Your task to perform on an android device: install app "Etsy: Buy & Sell Unique Items" Image 0: 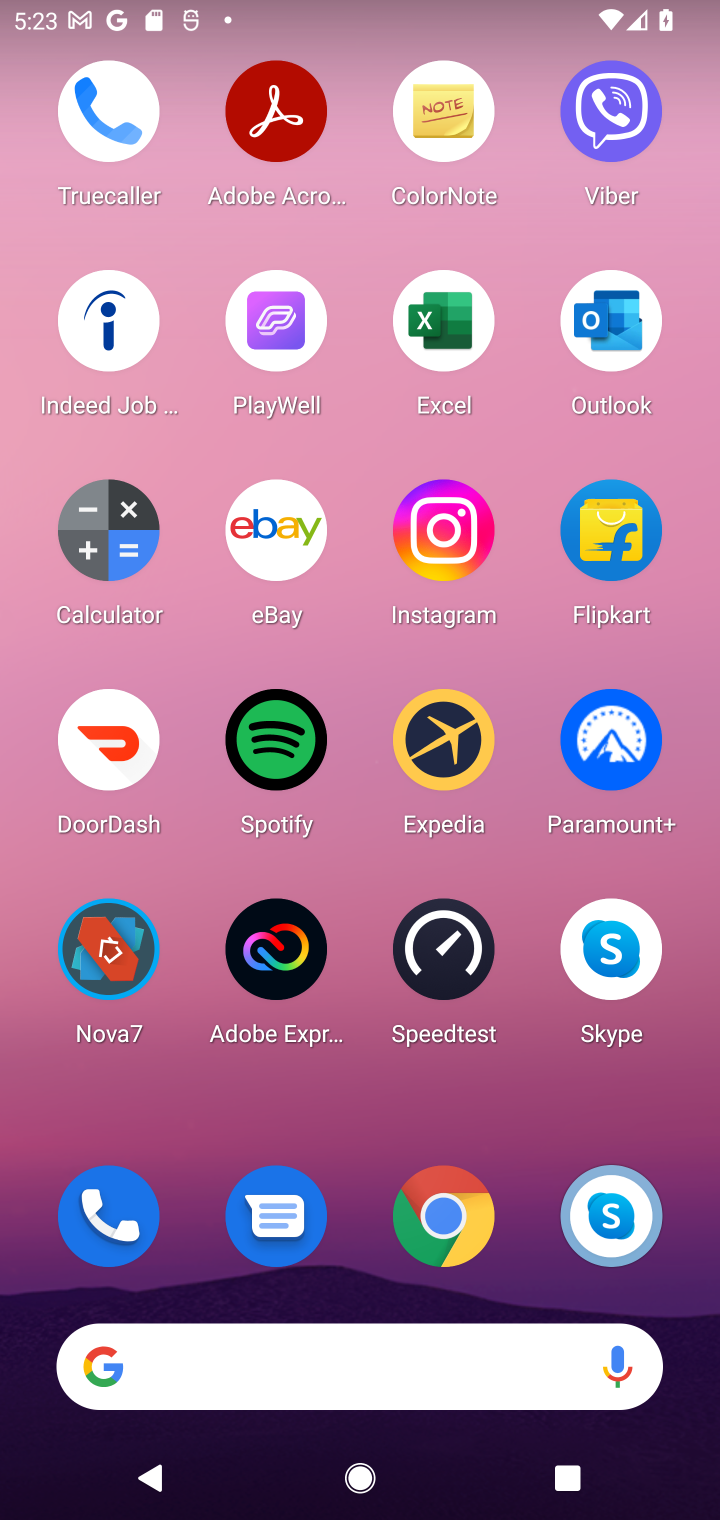
Step 0: drag from (521, 1247) to (514, 336)
Your task to perform on an android device: install app "Etsy: Buy & Sell Unique Items" Image 1: 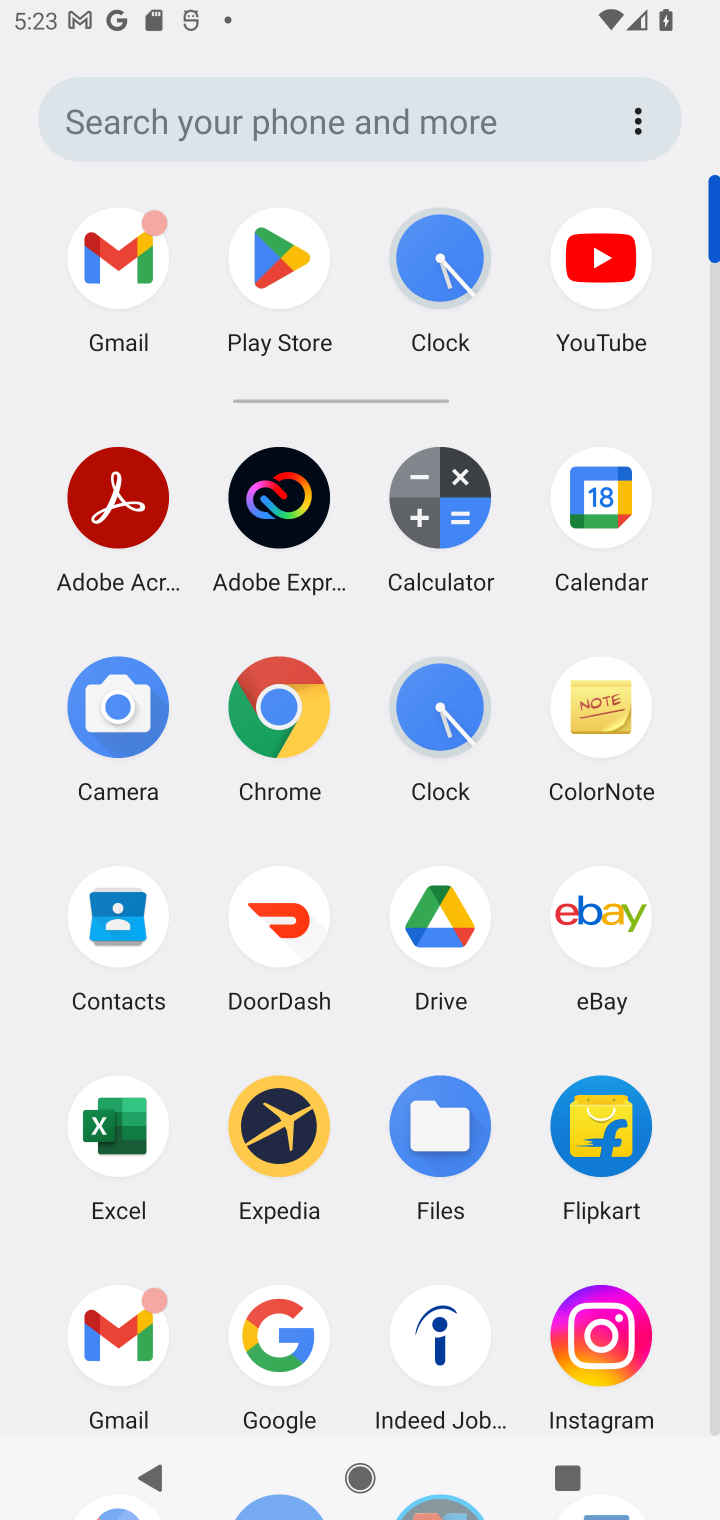
Step 1: drag from (520, 1233) to (531, 420)
Your task to perform on an android device: install app "Etsy: Buy & Sell Unique Items" Image 2: 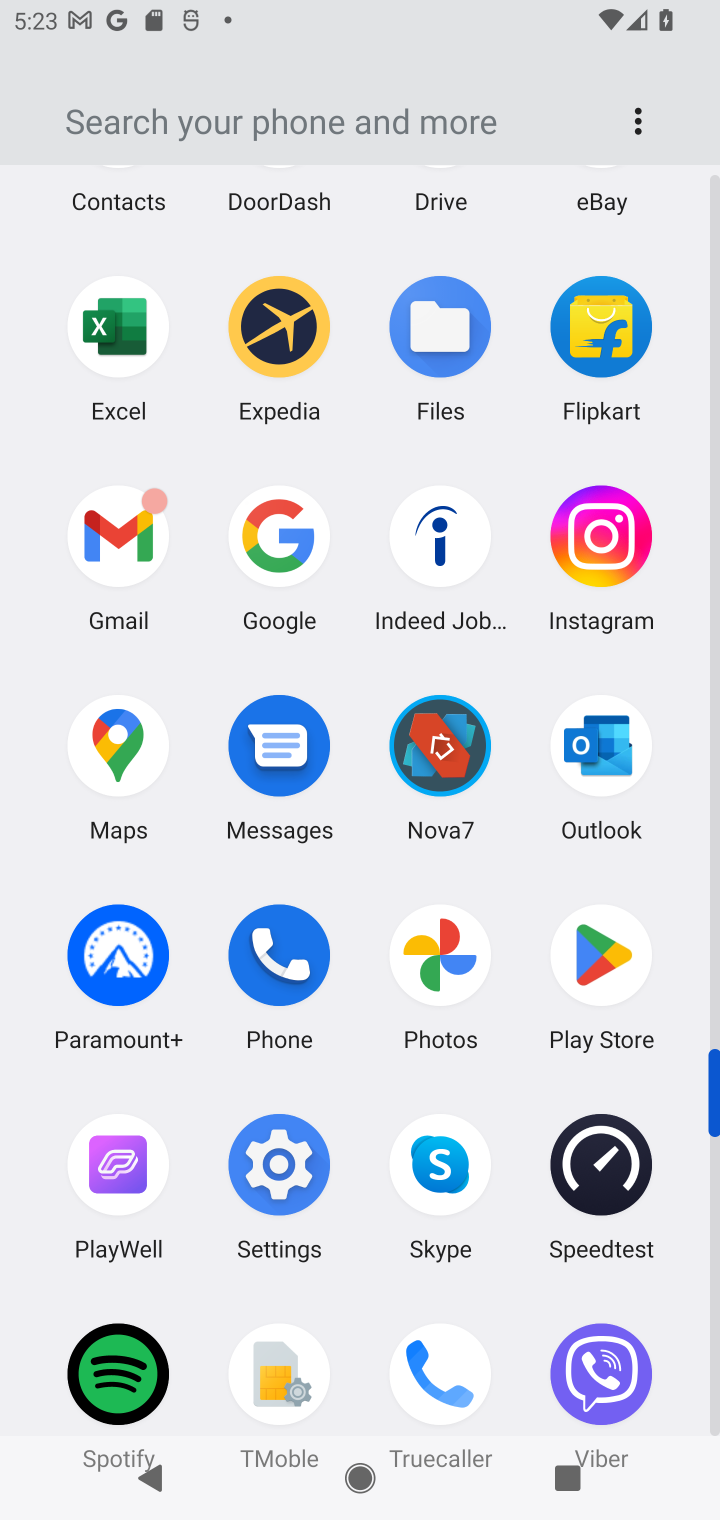
Step 2: click (605, 954)
Your task to perform on an android device: install app "Etsy: Buy & Sell Unique Items" Image 3: 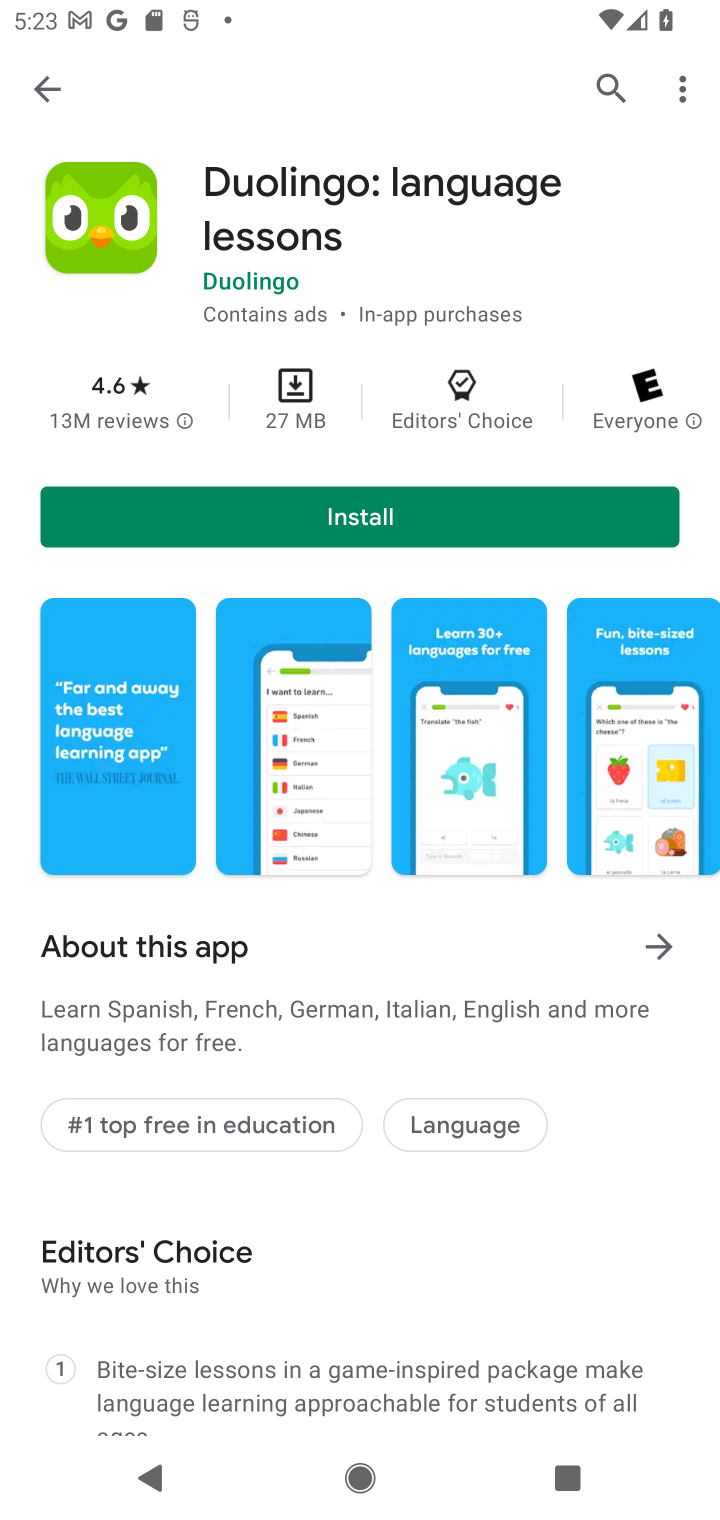
Step 3: click (594, 82)
Your task to perform on an android device: install app "Etsy: Buy & Sell Unique Items" Image 4: 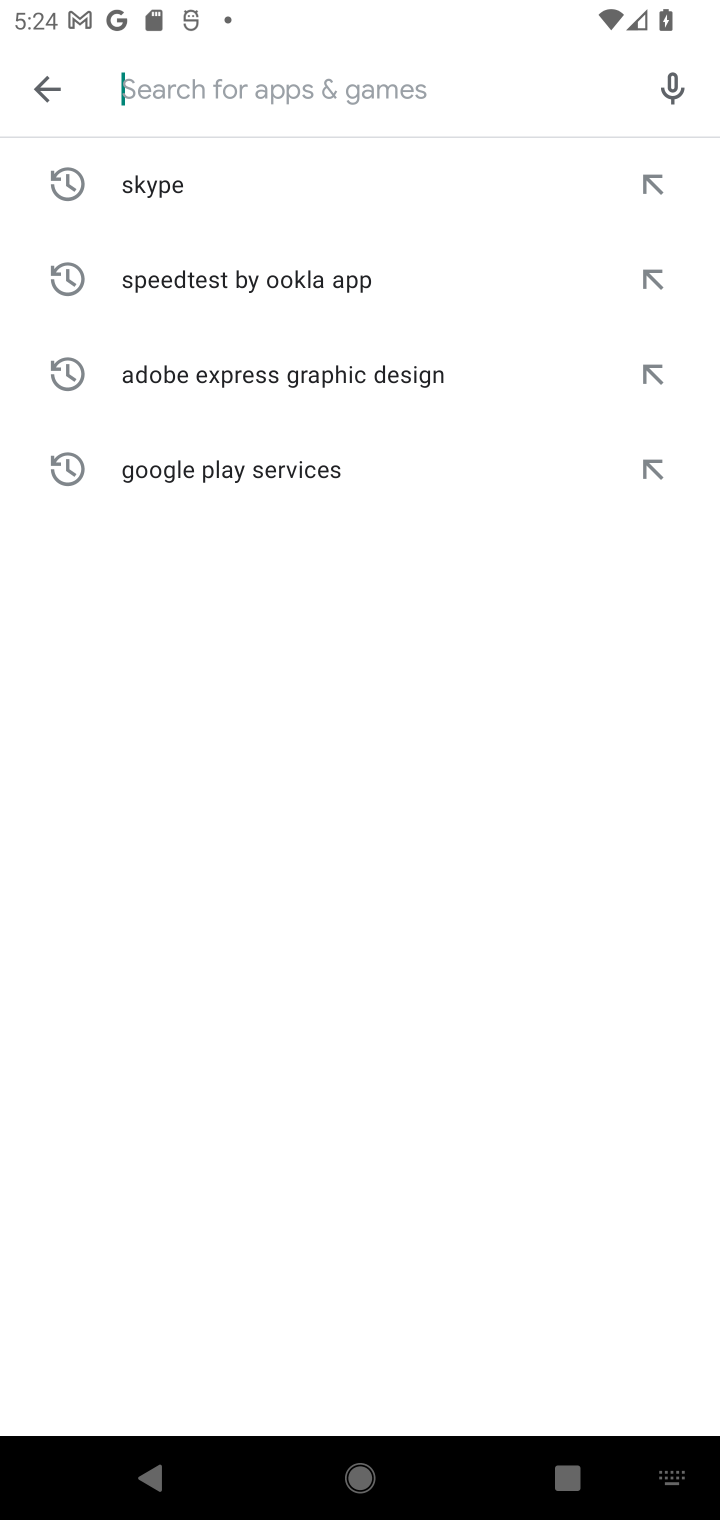
Step 4: type "Etsy: Buy & Sell Unique Items"
Your task to perform on an android device: install app "Etsy: Buy & Sell Unique Items" Image 5: 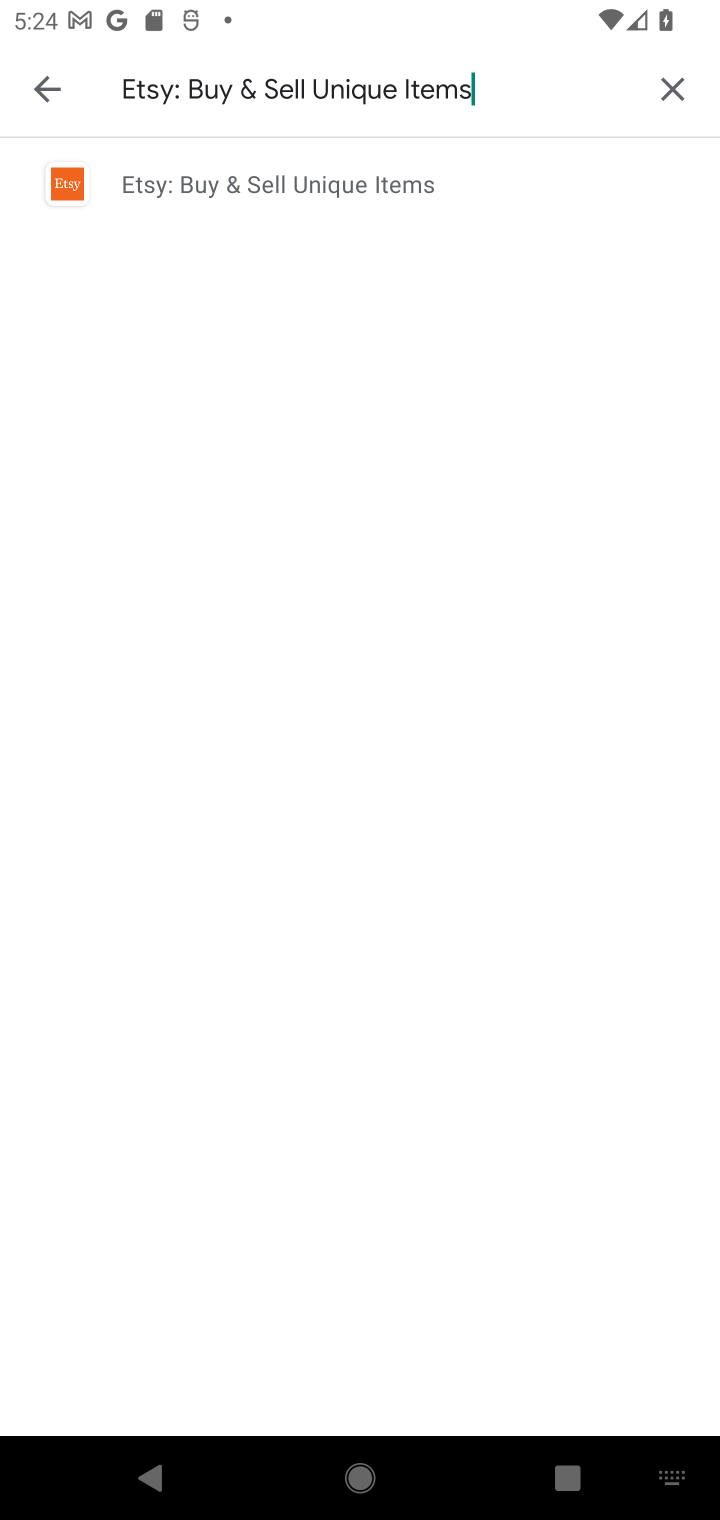
Step 5: click (210, 197)
Your task to perform on an android device: install app "Etsy: Buy & Sell Unique Items" Image 6: 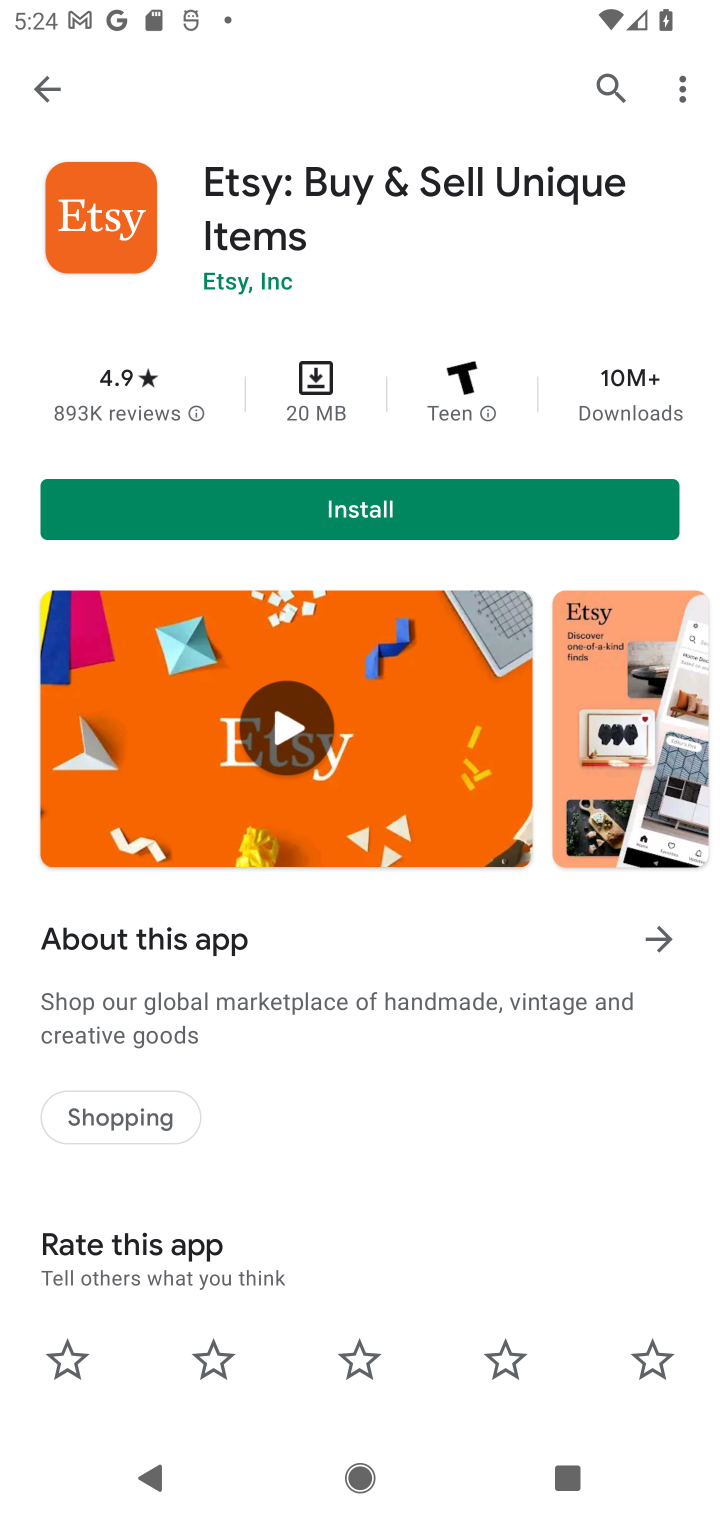
Step 6: click (381, 510)
Your task to perform on an android device: install app "Etsy: Buy & Sell Unique Items" Image 7: 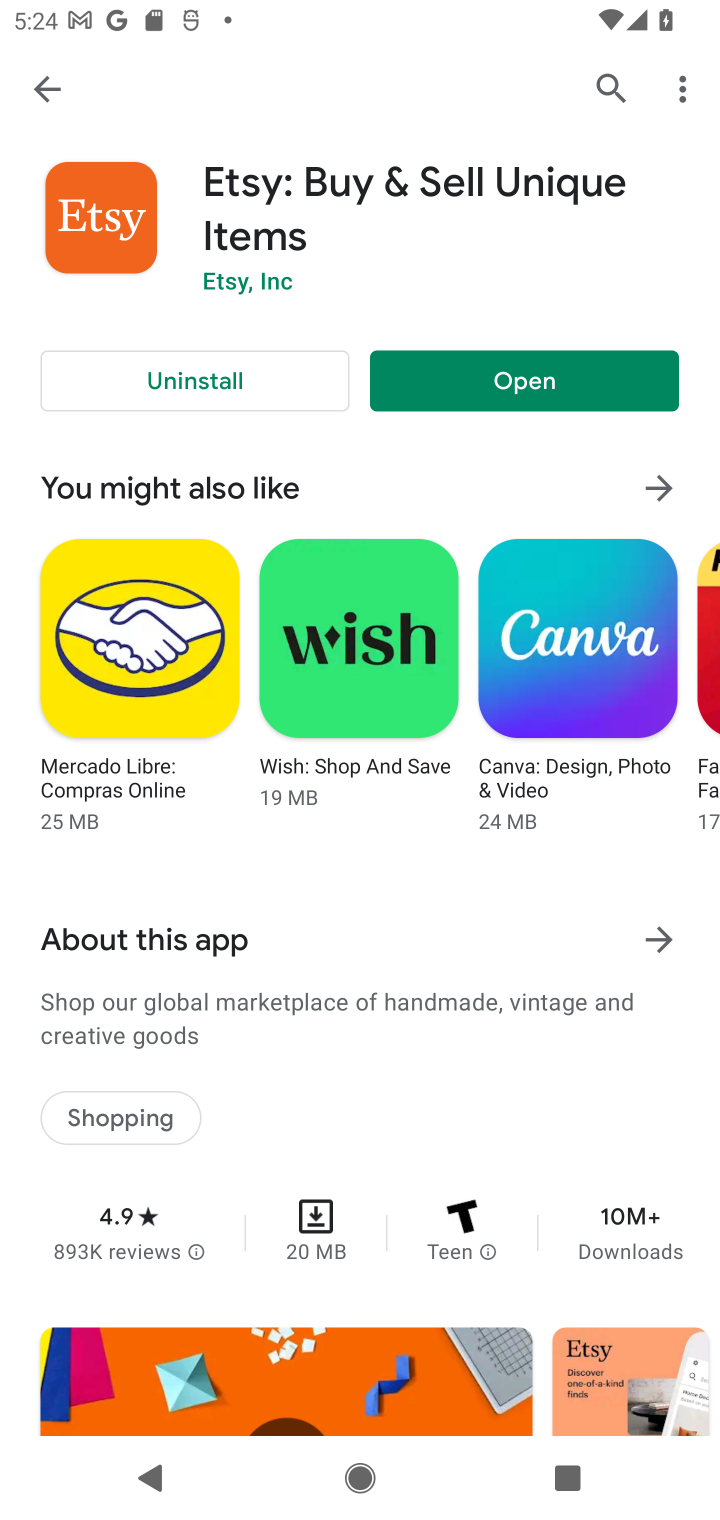
Step 7: task complete